Your task to perform on an android device: check google app version Image 0: 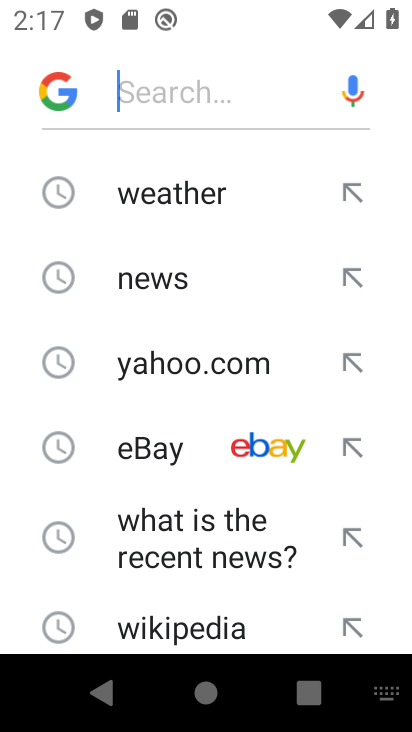
Step 0: press home button
Your task to perform on an android device: check google app version Image 1: 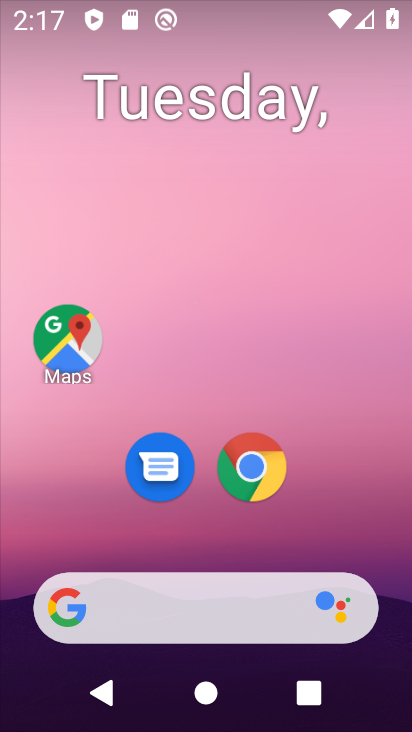
Step 1: drag from (358, 518) to (362, 116)
Your task to perform on an android device: check google app version Image 2: 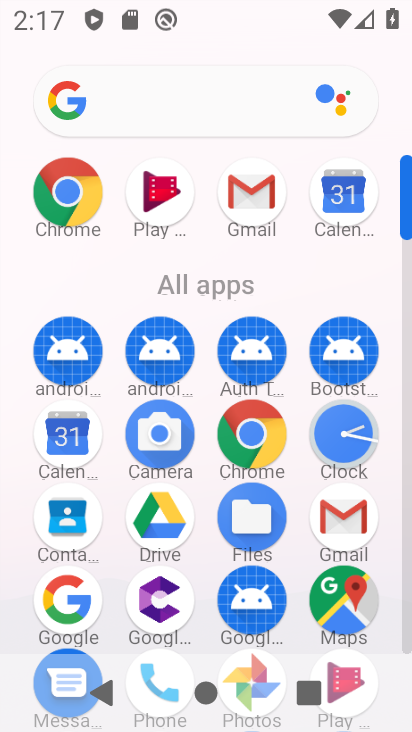
Step 2: drag from (194, 552) to (204, 290)
Your task to perform on an android device: check google app version Image 3: 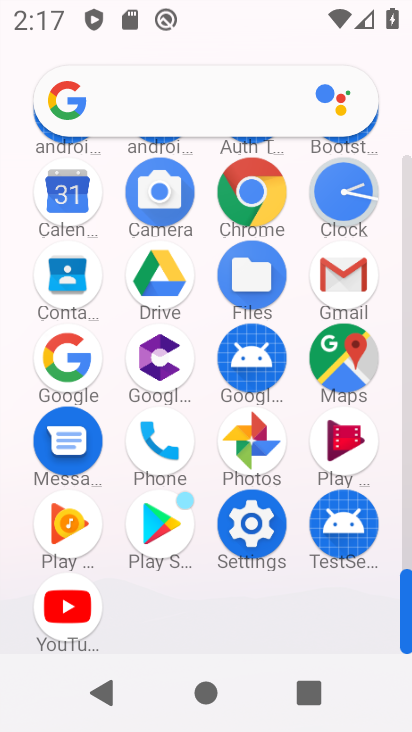
Step 3: click (252, 537)
Your task to perform on an android device: check google app version Image 4: 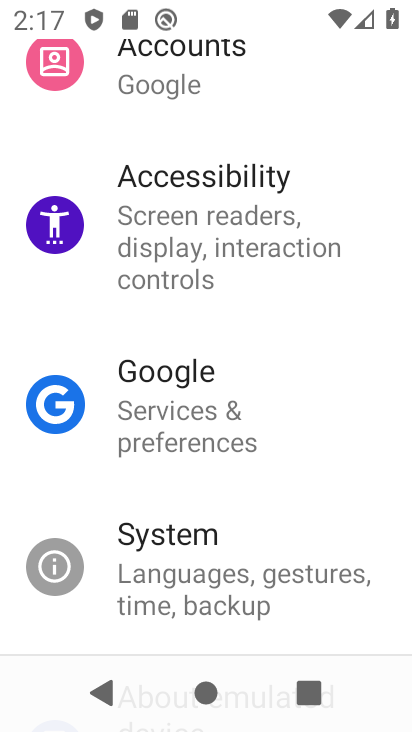
Step 4: click (295, 579)
Your task to perform on an android device: check google app version Image 5: 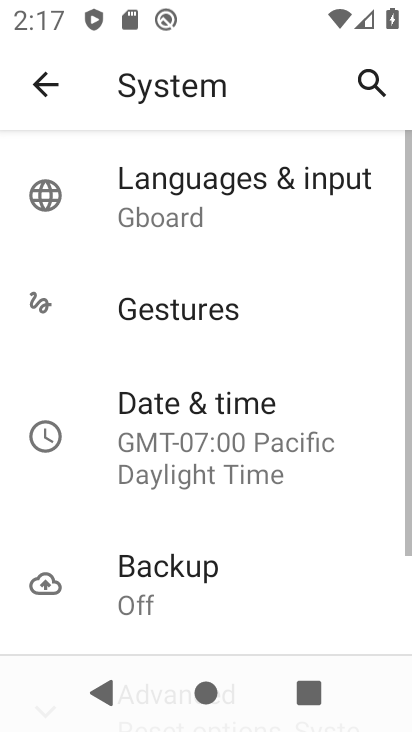
Step 5: drag from (319, 519) to (334, 322)
Your task to perform on an android device: check google app version Image 6: 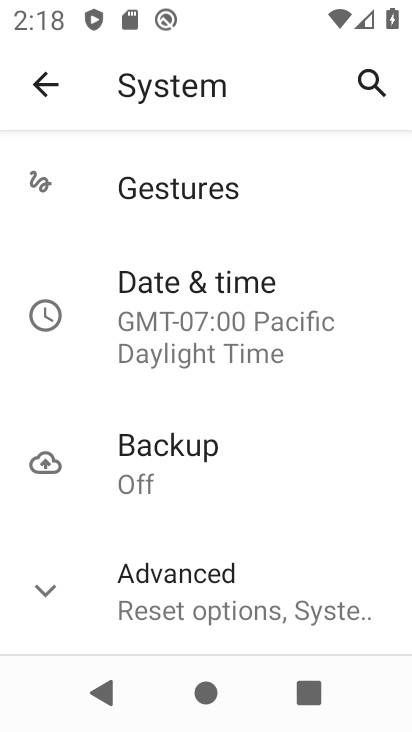
Step 6: click (257, 601)
Your task to perform on an android device: check google app version Image 7: 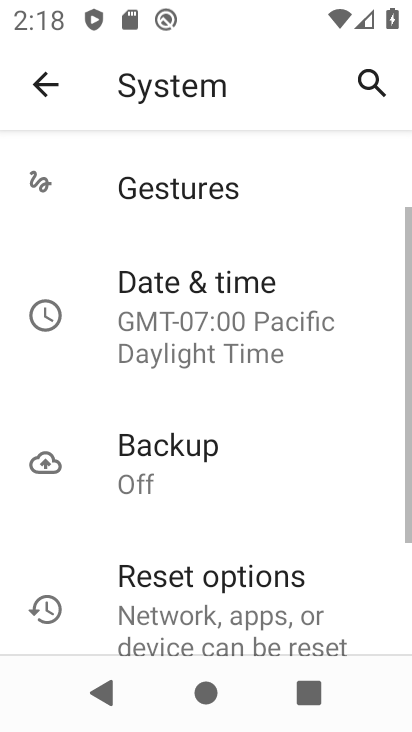
Step 7: drag from (315, 514) to (318, 240)
Your task to perform on an android device: check google app version Image 8: 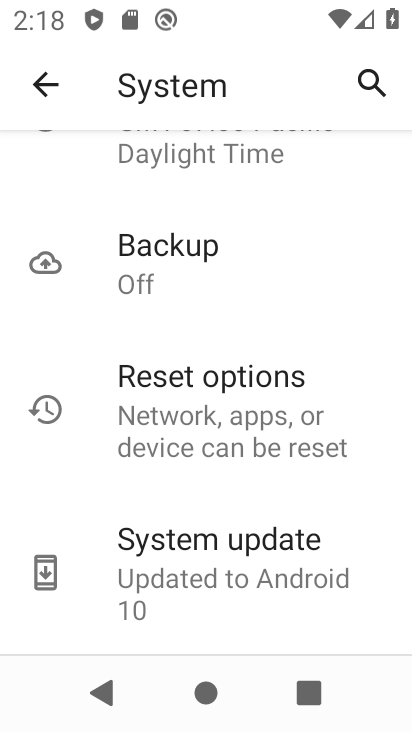
Step 8: click (259, 559)
Your task to perform on an android device: check google app version Image 9: 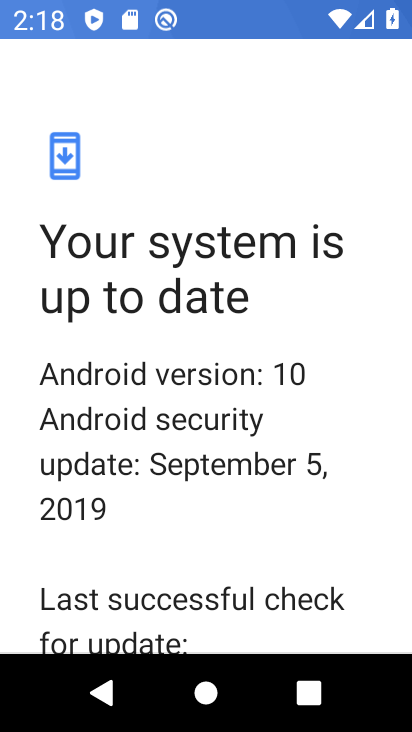
Step 9: task complete